Your task to perform on an android device: allow notifications from all sites in the chrome app Image 0: 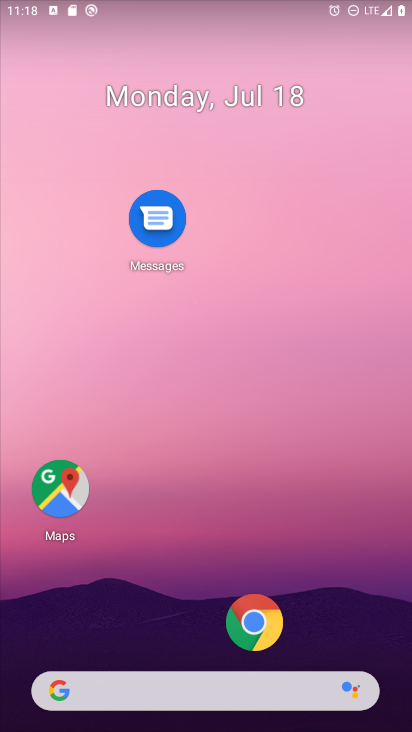
Step 0: drag from (217, 672) to (240, 96)
Your task to perform on an android device: allow notifications from all sites in the chrome app Image 1: 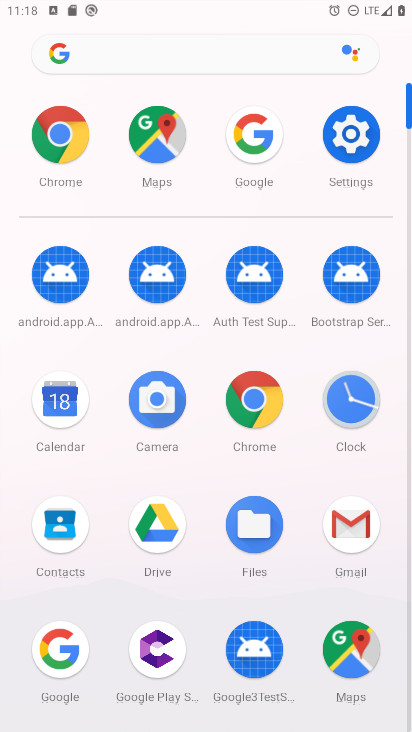
Step 1: click (254, 430)
Your task to perform on an android device: allow notifications from all sites in the chrome app Image 2: 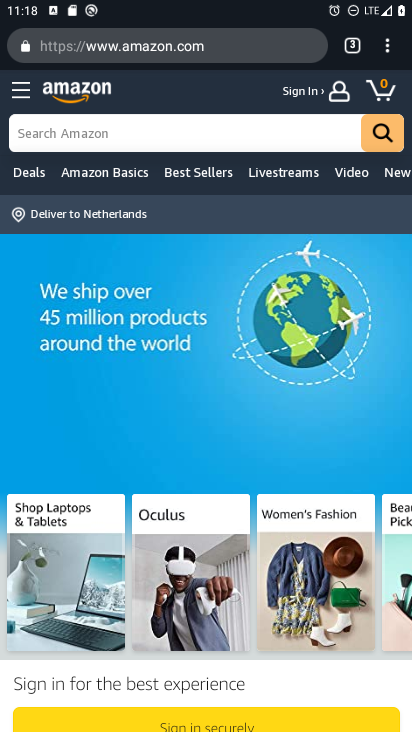
Step 2: click (390, 48)
Your task to perform on an android device: allow notifications from all sites in the chrome app Image 3: 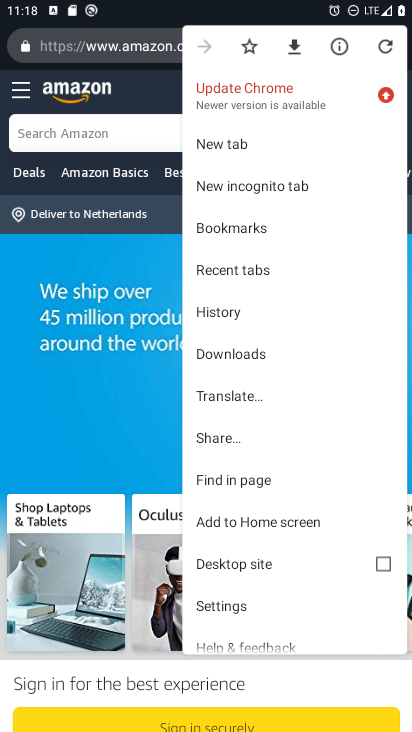
Step 3: click (233, 603)
Your task to perform on an android device: allow notifications from all sites in the chrome app Image 4: 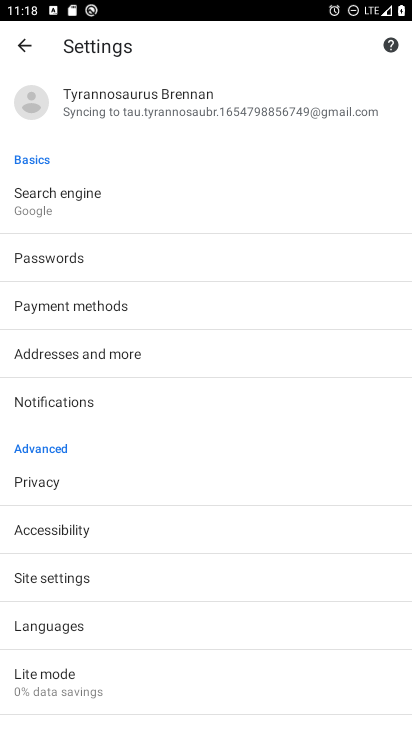
Step 4: click (73, 406)
Your task to perform on an android device: allow notifications from all sites in the chrome app Image 5: 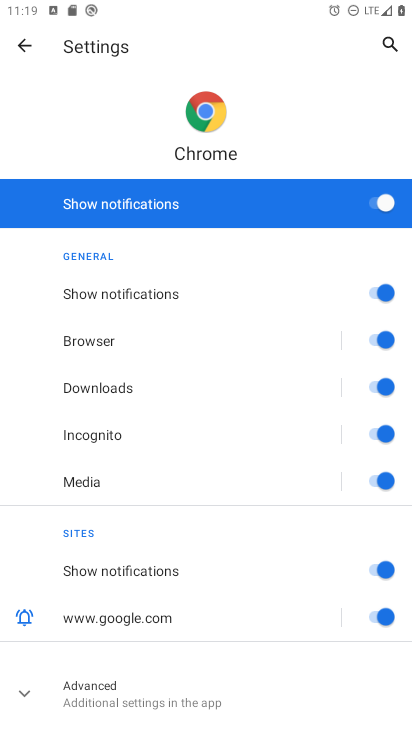
Step 5: task complete